Your task to perform on an android device: When is my next appointment? Image 0: 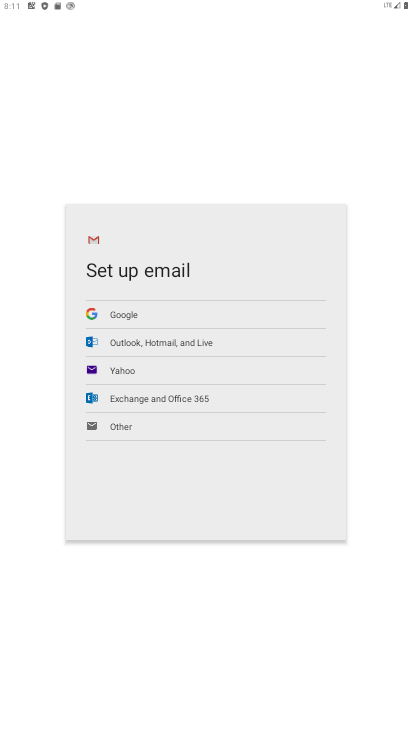
Step 0: press home button
Your task to perform on an android device: When is my next appointment? Image 1: 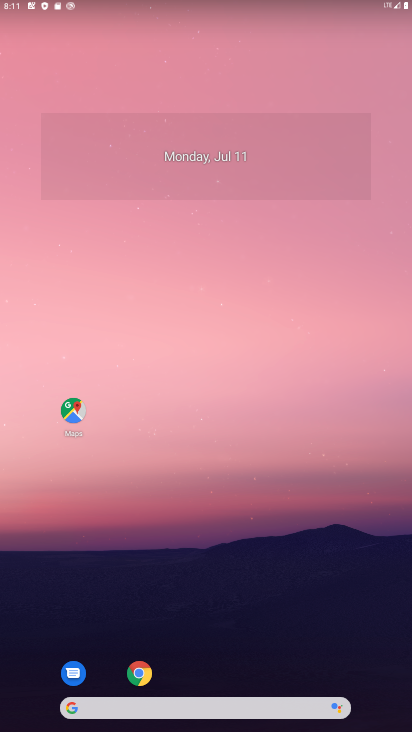
Step 1: drag from (192, 707) to (192, 304)
Your task to perform on an android device: When is my next appointment? Image 2: 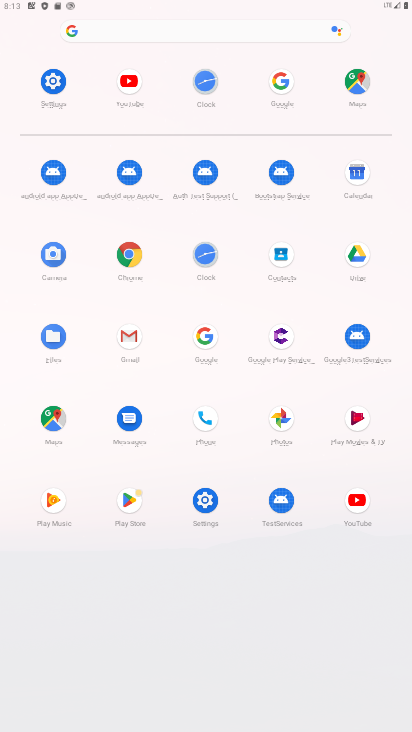
Step 2: click (355, 180)
Your task to perform on an android device: When is my next appointment? Image 3: 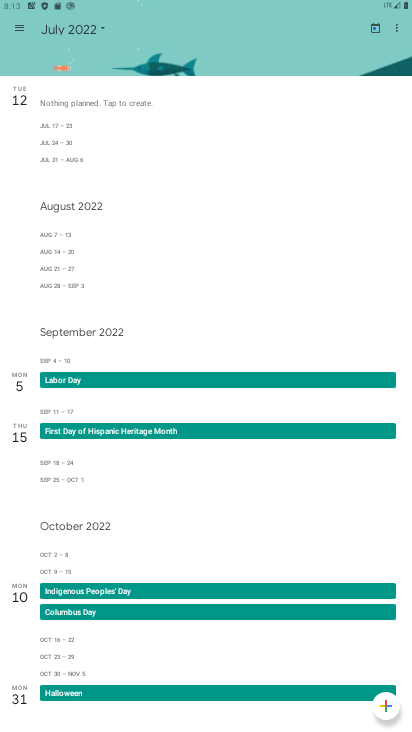
Step 3: task complete